Your task to perform on an android device: turn pop-ups off in chrome Image 0: 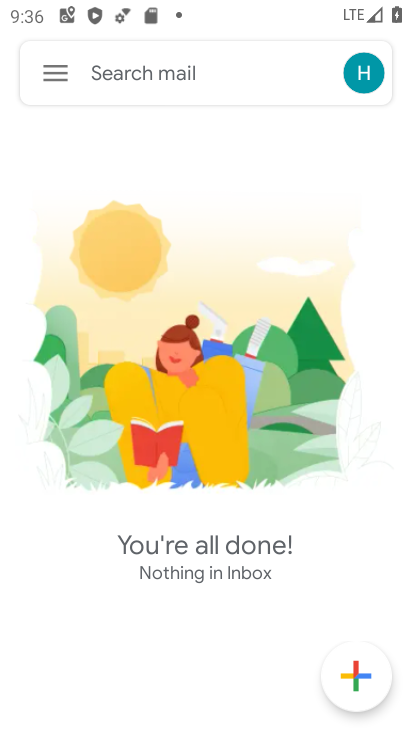
Step 0: press home button
Your task to perform on an android device: turn pop-ups off in chrome Image 1: 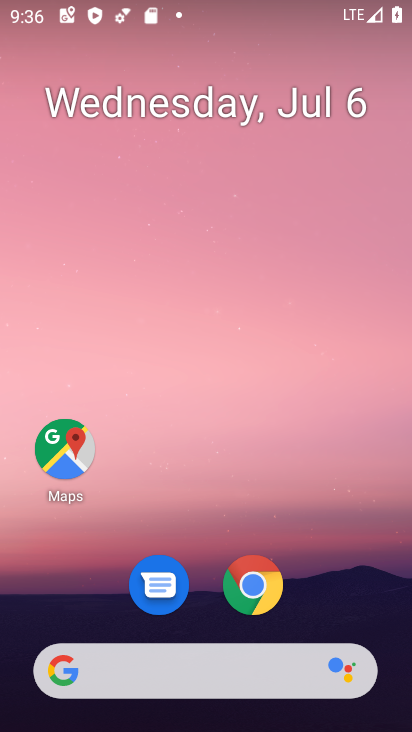
Step 1: drag from (196, 487) to (253, 24)
Your task to perform on an android device: turn pop-ups off in chrome Image 2: 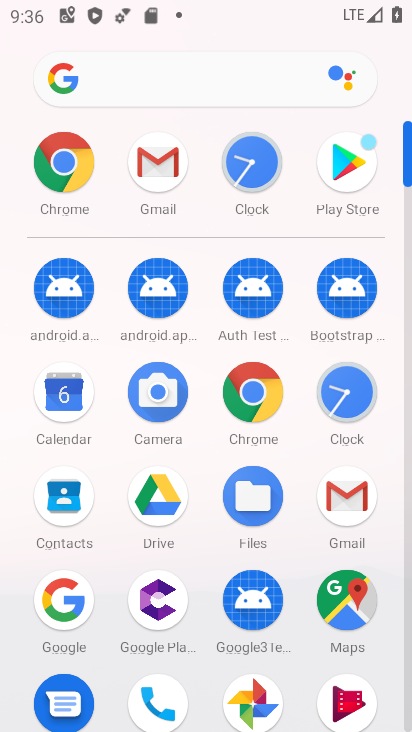
Step 2: click (75, 164)
Your task to perform on an android device: turn pop-ups off in chrome Image 3: 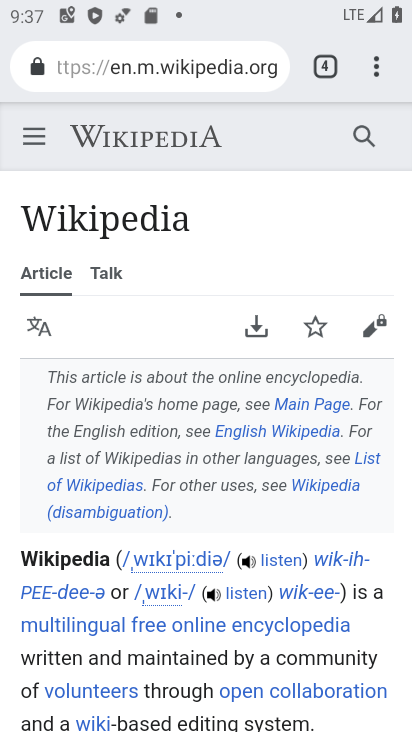
Step 3: click (375, 71)
Your task to perform on an android device: turn pop-ups off in chrome Image 4: 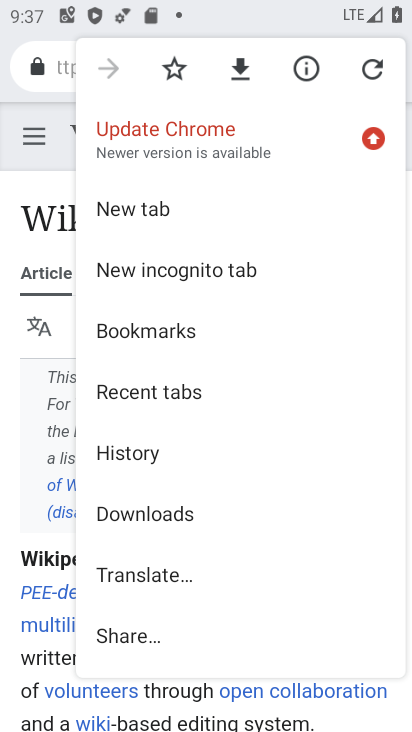
Step 4: drag from (232, 535) to (234, 212)
Your task to perform on an android device: turn pop-ups off in chrome Image 5: 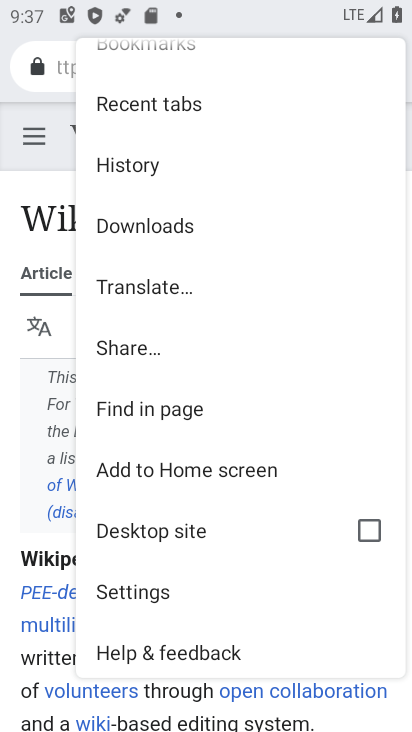
Step 5: click (162, 586)
Your task to perform on an android device: turn pop-ups off in chrome Image 6: 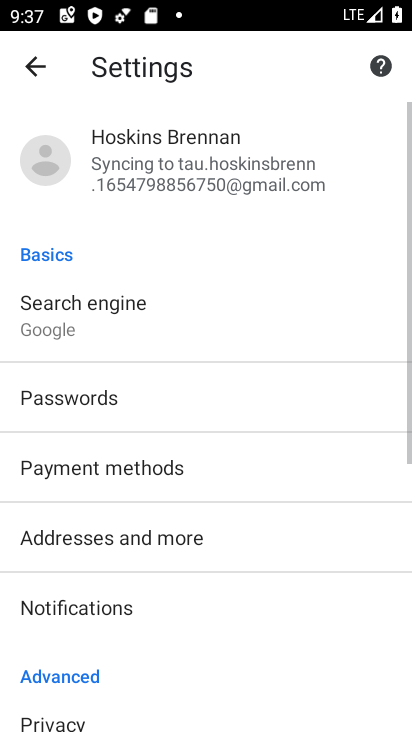
Step 6: drag from (245, 470) to (275, 112)
Your task to perform on an android device: turn pop-ups off in chrome Image 7: 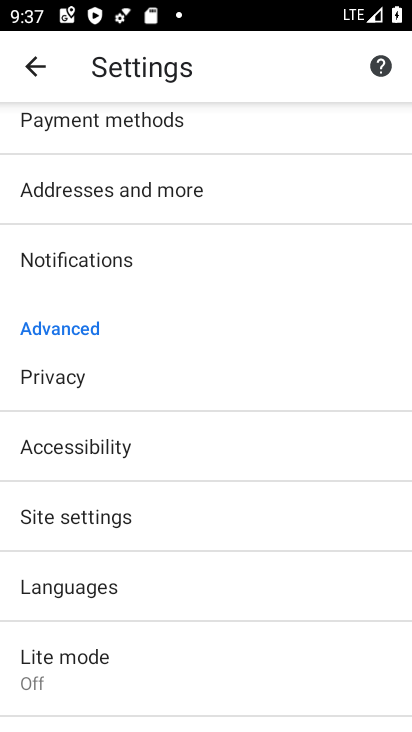
Step 7: click (107, 520)
Your task to perform on an android device: turn pop-ups off in chrome Image 8: 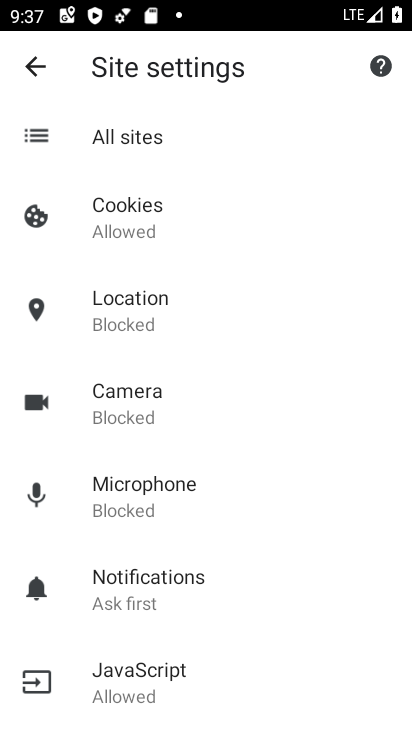
Step 8: drag from (263, 494) to (274, 155)
Your task to perform on an android device: turn pop-ups off in chrome Image 9: 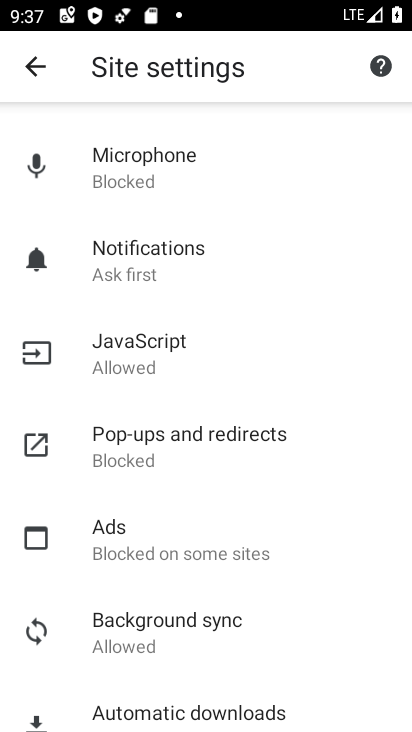
Step 9: click (197, 449)
Your task to perform on an android device: turn pop-ups off in chrome Image 10: 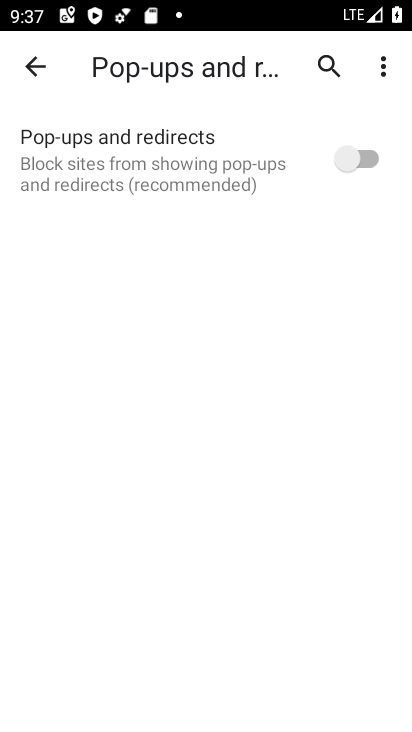
Step 10: task complete